Your task to perform on an android device: change the clock display to digital Image 0: 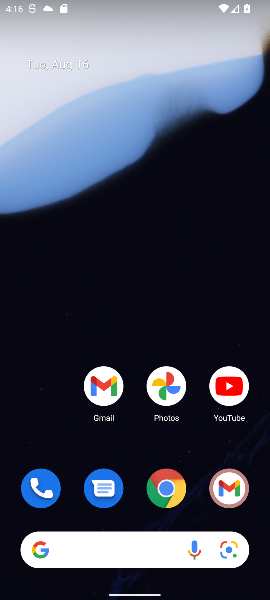
Step 0: drag from (43, 407) to (141, 179)
Your task to perform on an android device: change the clock display to digital Image 1: 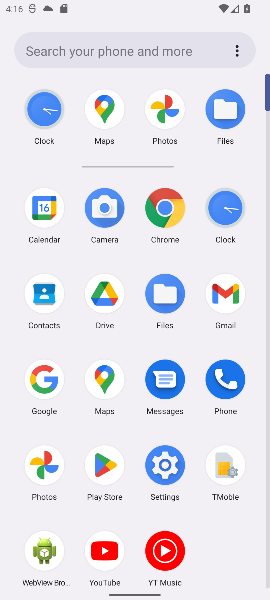
Step 1: click (221, 199)
Your task to perform on an android device: change the clock display to digital Image 2: 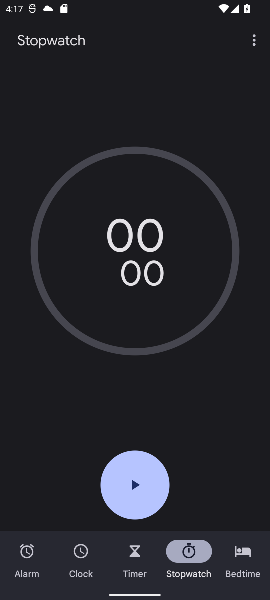
Step 2: task complete